Your task to perform on an android device: Turn on the flashlight Image 0: 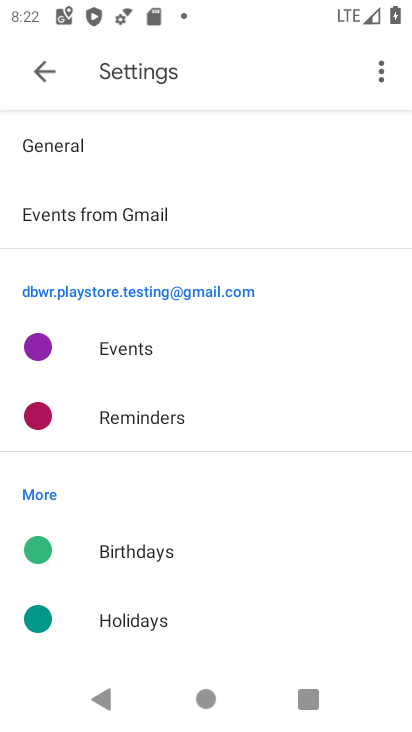
Step 0: press home button
Your task to perform on an android device: Turn on the flashlight Image 1: 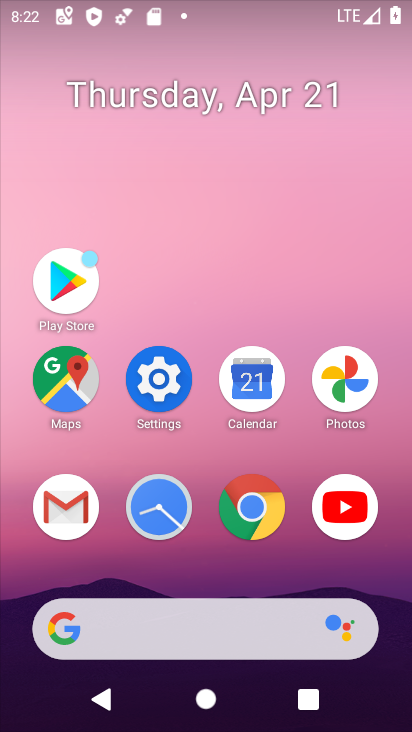
Step 1: click (162, 365)
Your task to perform on an android device: Turn on the flashlight Image 2: 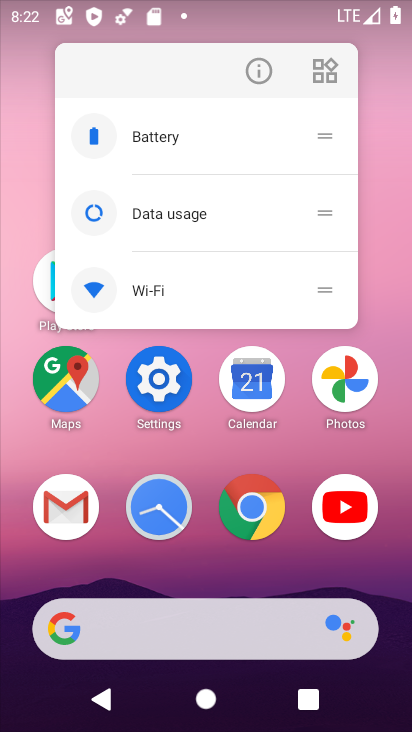
Step 2: click (153, 384)
Your task to perform on an android device: Turn on the flashlight Image 3: 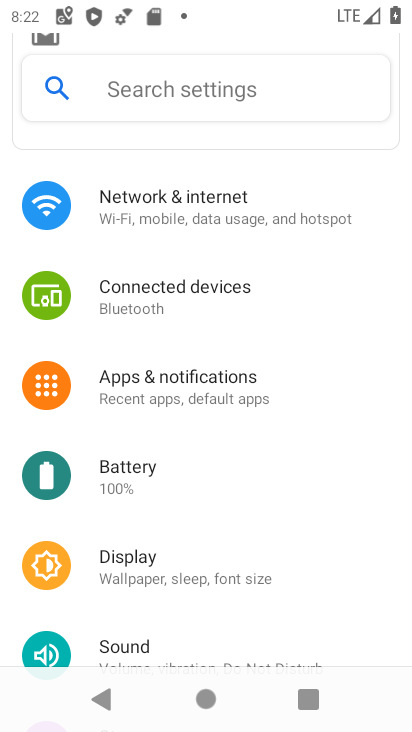
Step 3: click (164, 382)
Your task to perform on an android device: Turn on the flashlight Image 4: 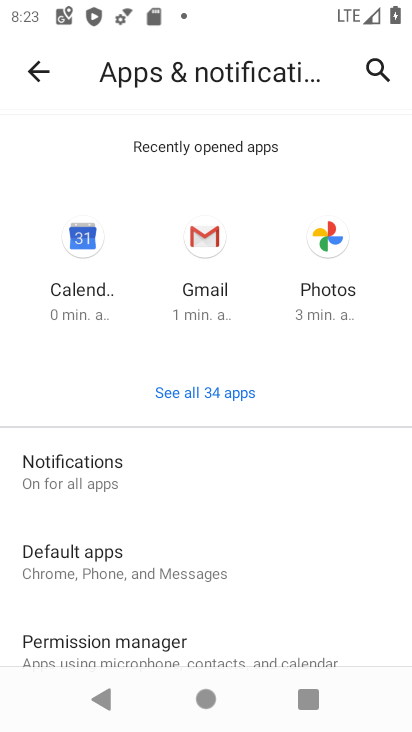
Step 4: click (35, 66)
Your task to perform on an android device: Turn on the flashlight Image 5: 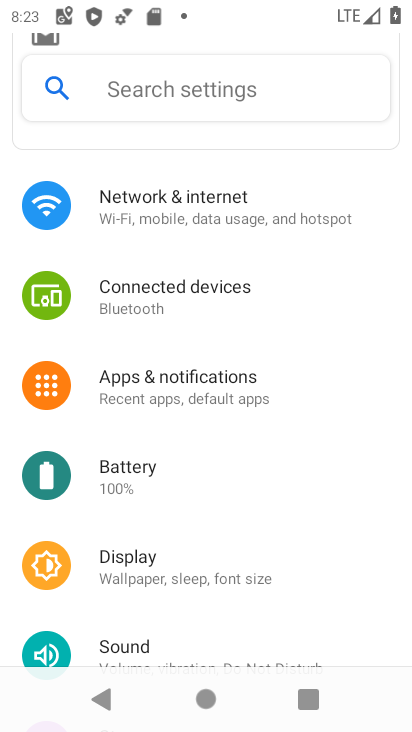
Step 5: click (192, 376)
Your task to perform on an android device: Turn on the flashlight Image 6: 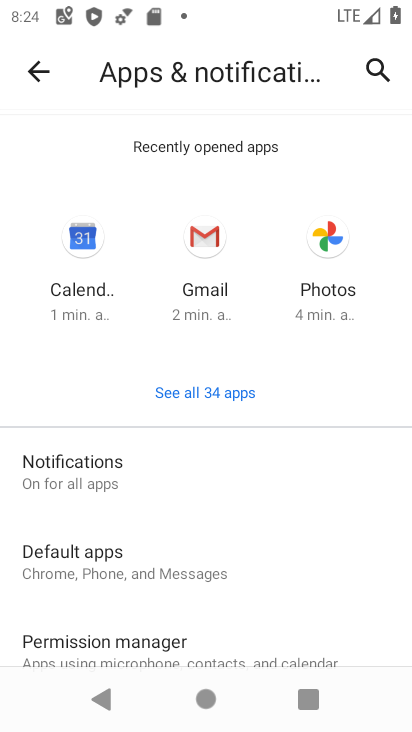
Step 6: click (40, 63)
Your task to perform on an android device: Turn on the flashlight Image 7: 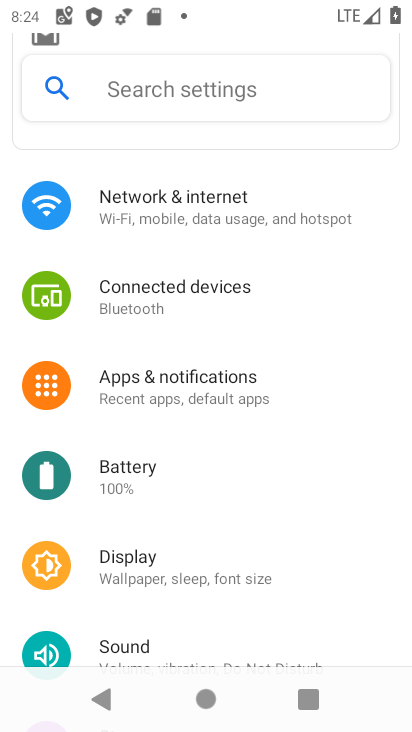
Step 7: task complete